Your task to perform on an android device: Open Maps and search for coffee Image 0: 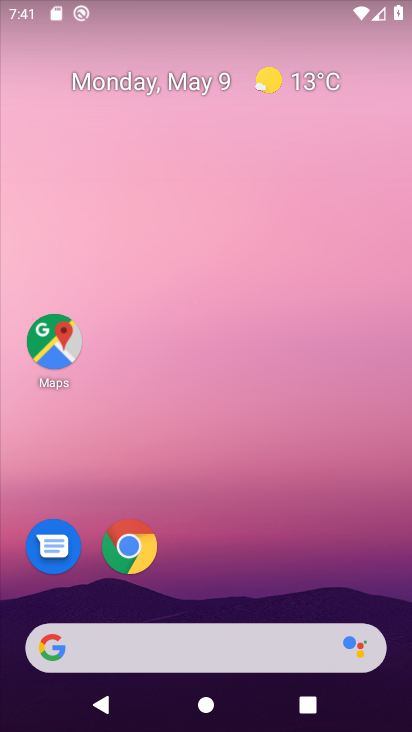
Step 0: click (51, 344)
Your task to perform on an android device: Open Maps and search for coffee Image 1: 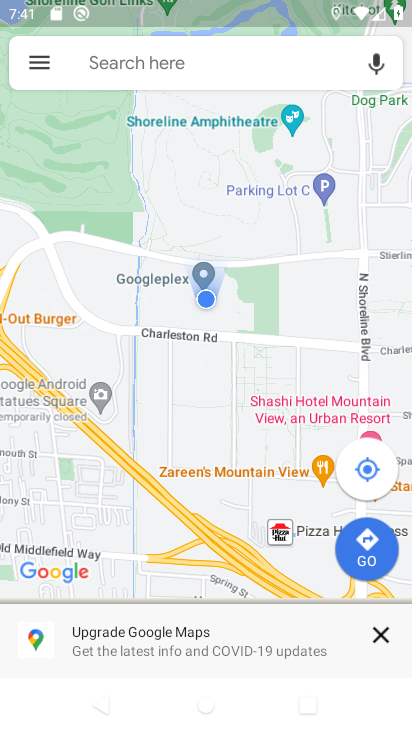
Step 1: click (164, 67)
Your task to perform on an android device: Open Maps and search for coffee Image 2: 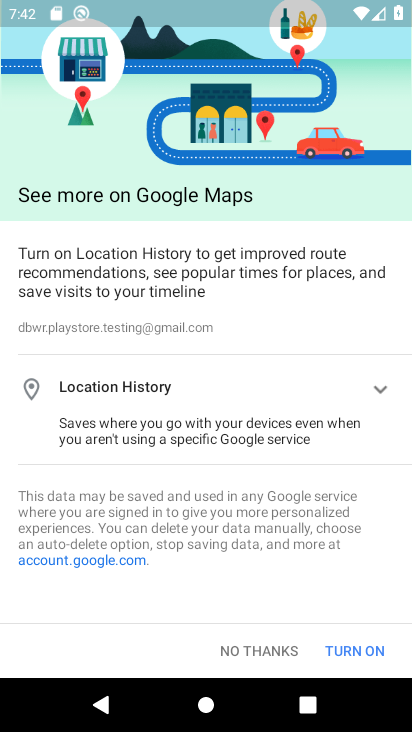
Step 2: type "coffee"
Your task to perform on an android device: Open Maps and search for coffee Image 3: 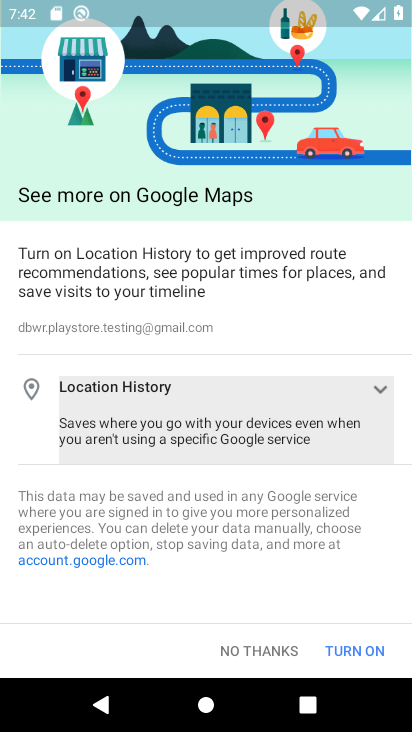
Step 3: click (373, 645)
Your task to perform on an android device: Open Maps and search for coffee Image 4: 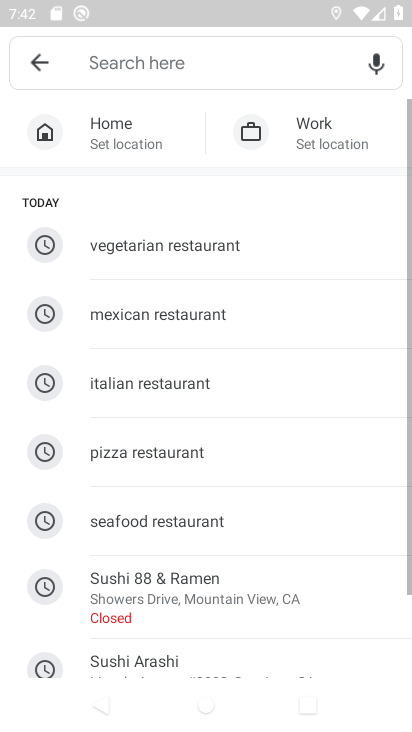
Step 4: click (152, 61)
Your task to perform on an android device: Open Maps and search for coffee Image 5: 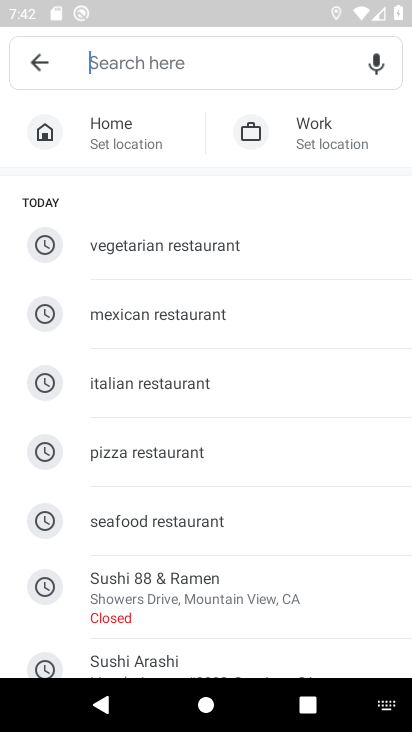
Step 5: type "coffee"
Your task to perform on an android device: Open Maps and search for coffee Image 6: 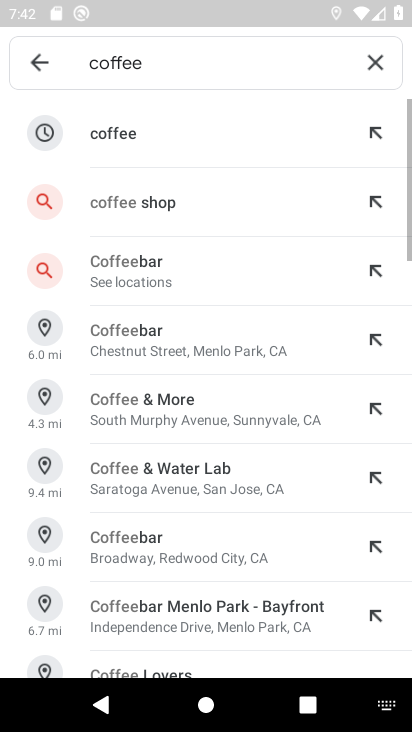
Step 6: click (143, 139)
Your task to perform on an android device: Open Maps and search for coffee Image 7: 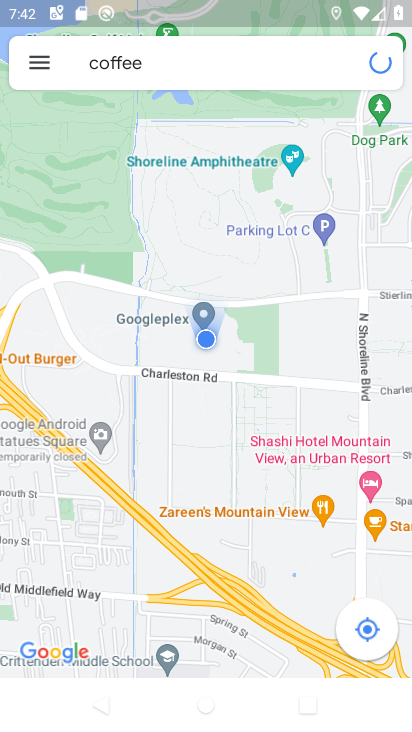
Step 7: task complete